Your task to perform on an android device: What is the recent news? Image 0: 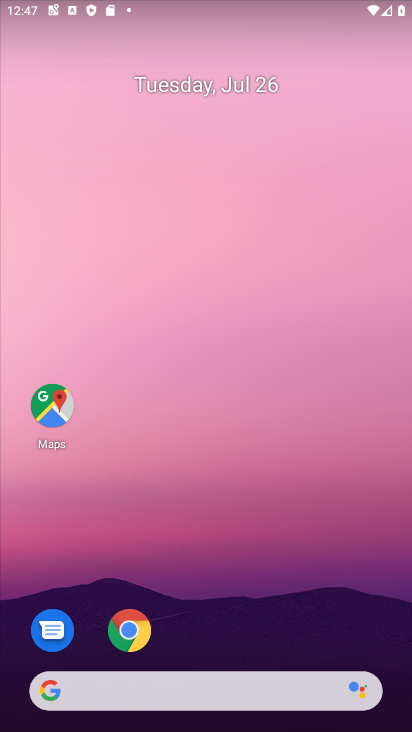
Step 0: drag from (4, 316) to (379, 355)
Your task to perform on an android device: What is the recent news? Image 1: 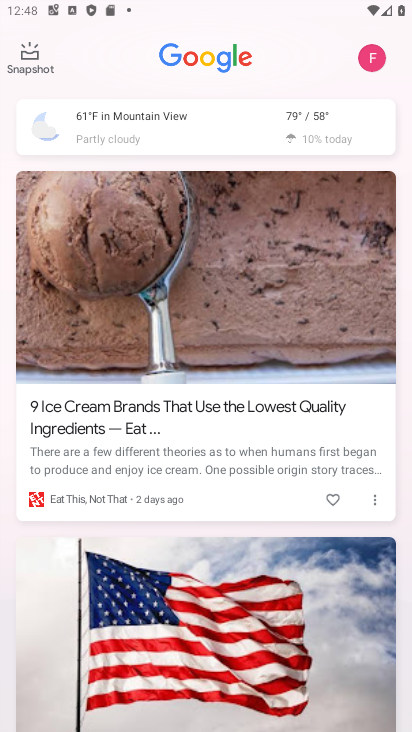
Step 1: task complete